Your task to perform on an android device: Open Google Chrome and click the shortcut for Amazon.com Image 0: 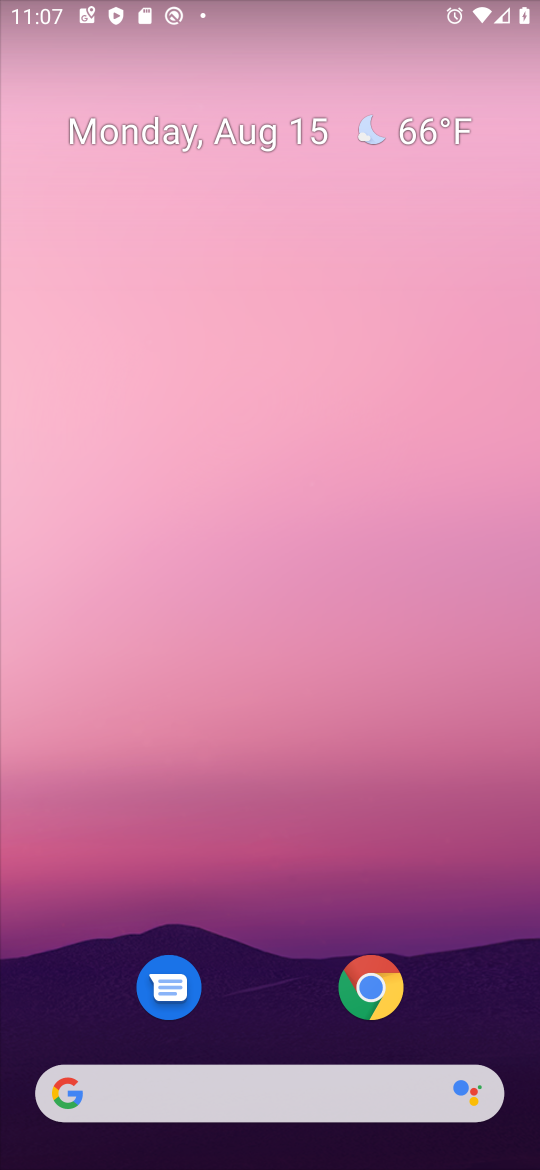
Step 0: drag from (250, 1075) to (148, 103)
Your task to perform on an android device: Open Google Chrome and click the shortcut for Amazon.com Image 1: 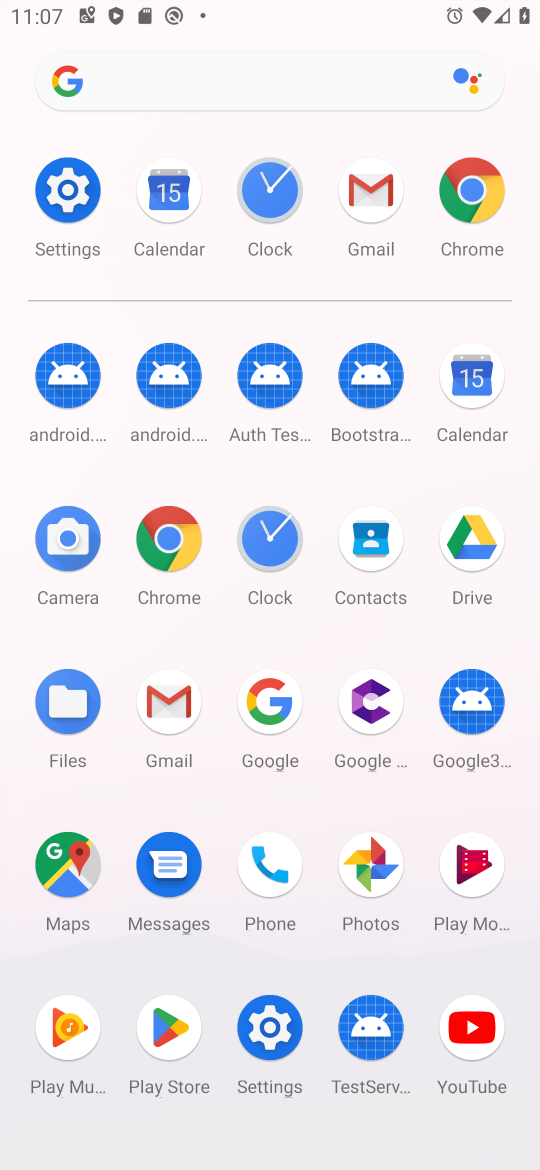
Step 1: click (158, 536)
Your task to perform on an android device: Open Google Chrome and click the shortcut for Amazon.com Image 2: 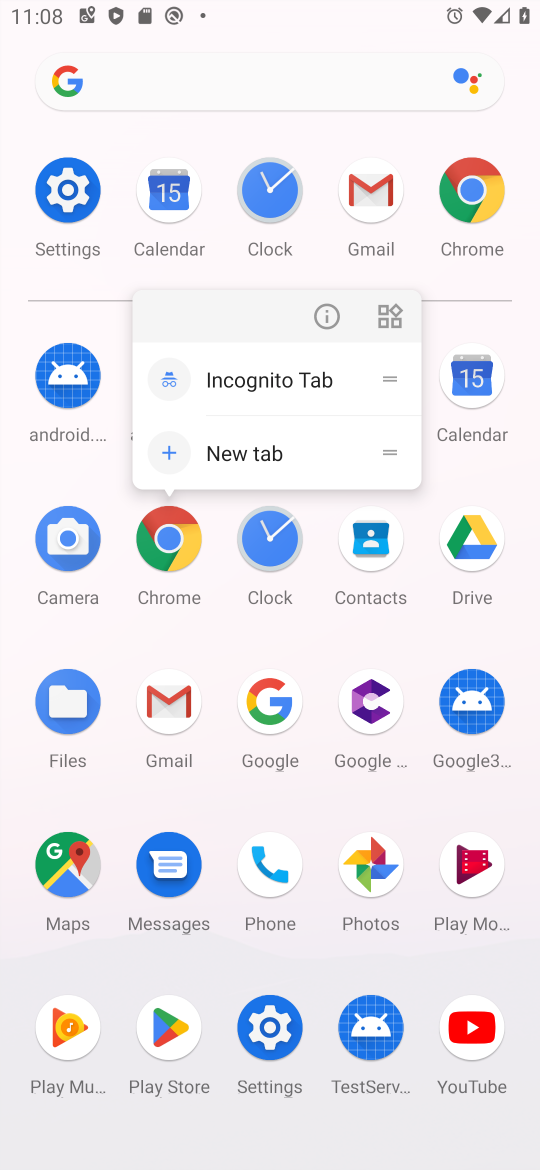
Step 2: click (157, 573)
Your task to perform on an android device: Open Google Chrome and click the shortcut for Amazon.com Image 3: 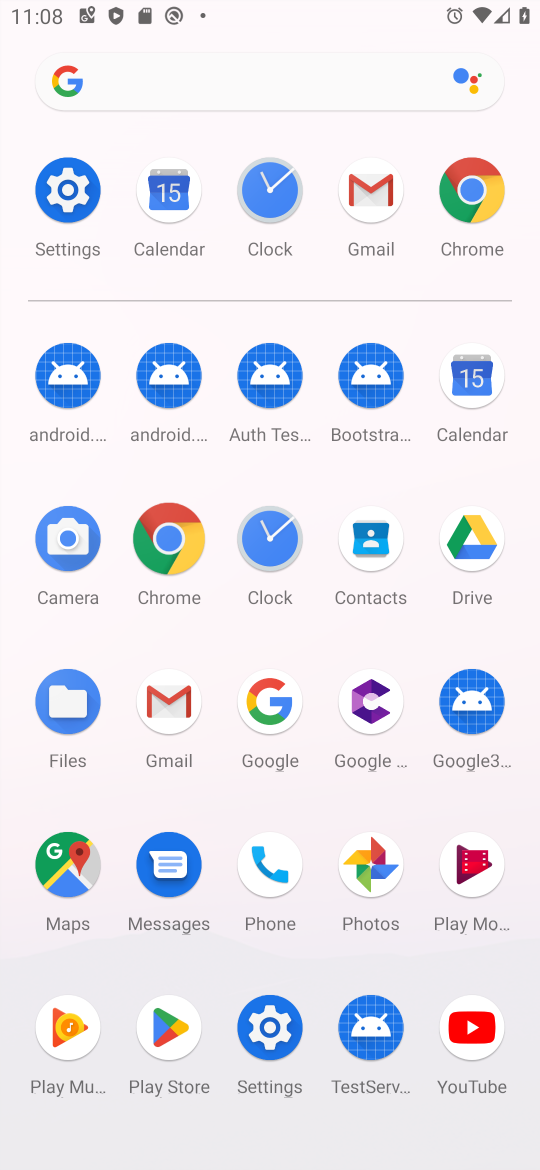
Step 3: click (169, 557)
Your task to perform on an android device: Open Google Chrome and click the shortcut for Amazon.com Image 4: 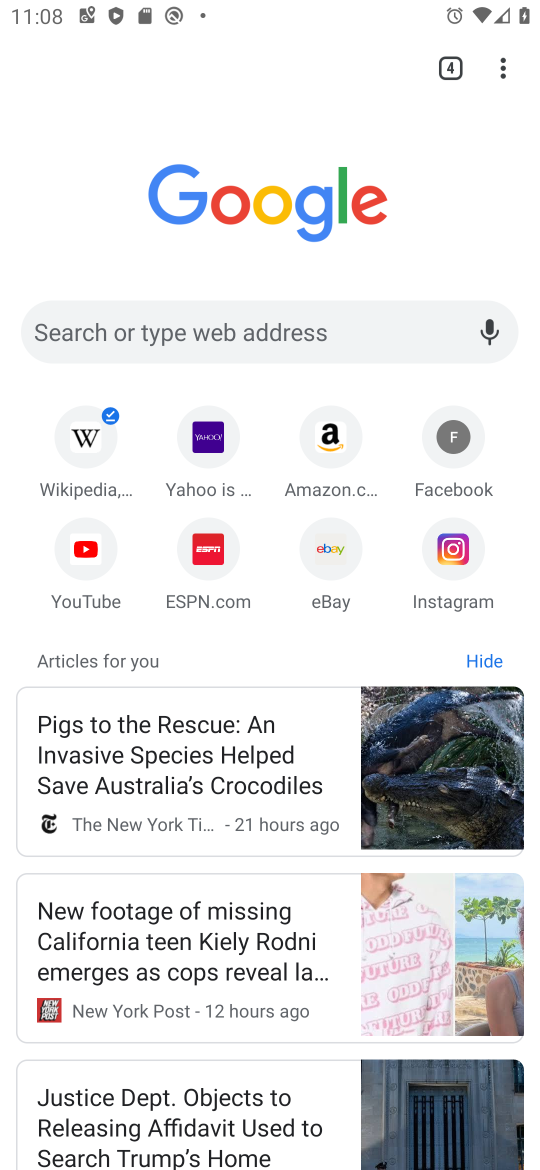
Step 4: click (327, 436)
Your task to perform on an android device: Open Google Chrome and click the shortcut for Amazon.com Image 5: 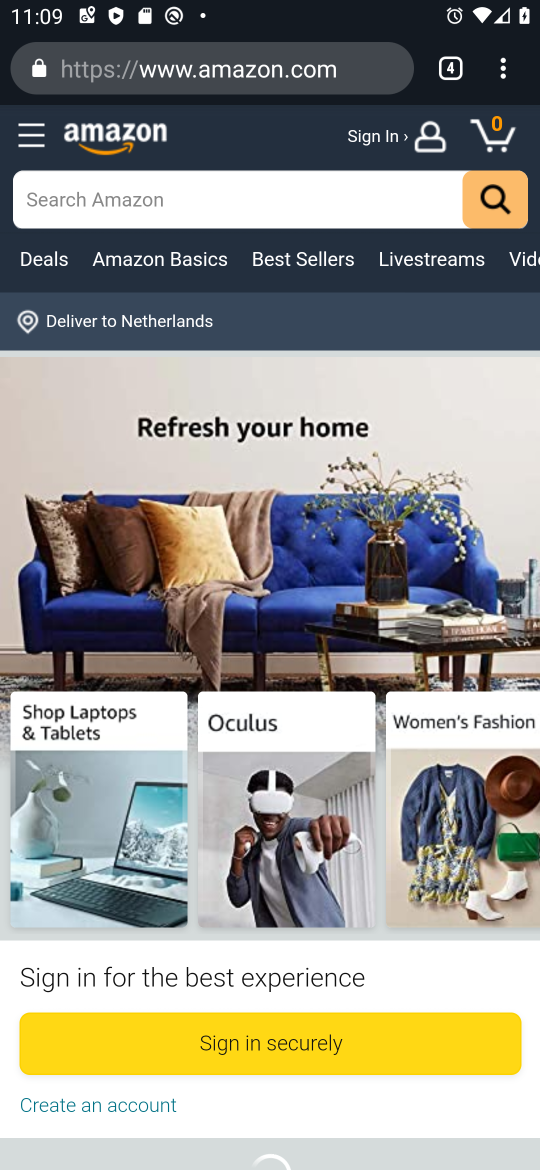
Step 5: task complete